Your task to perform on an android device: toggle location history Image 0: 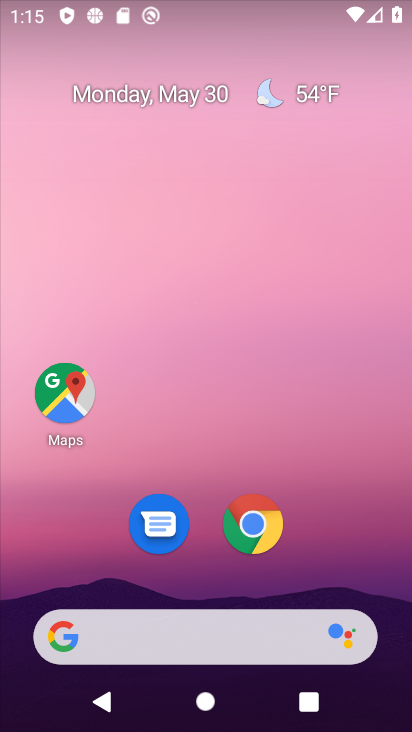
Step 0: drag from (273, 423) to (305, 1)
Your task to perform on an android device: toggle location history Image 1: 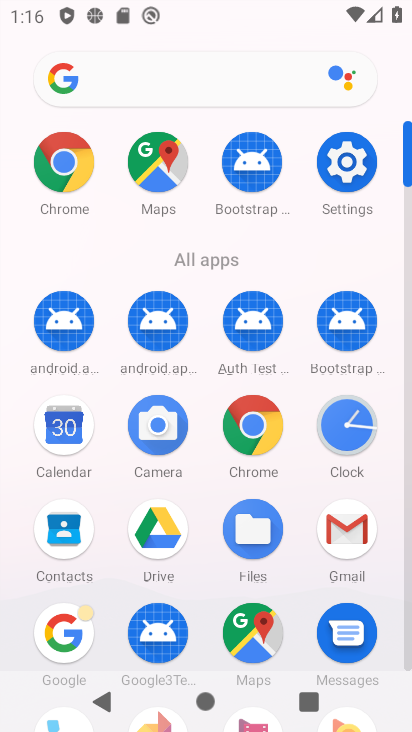
Step 1: click (358, 169)
Your task to perform on an android device: toggle location history Image 2: 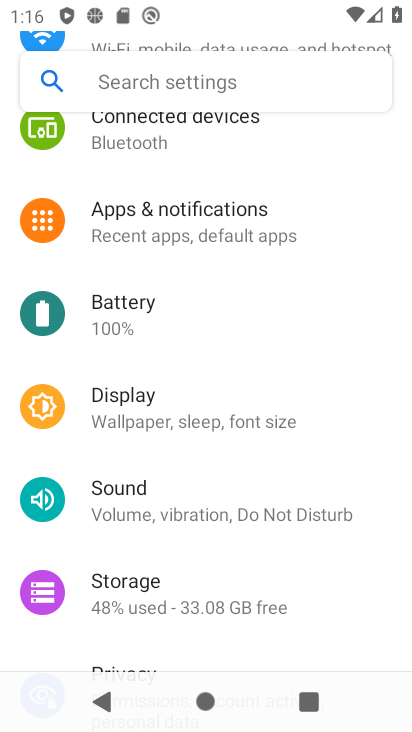
Step 2: drag from (245, 458) to (239, 127)
Your task to perform on an android device: toggle location history Image 3: 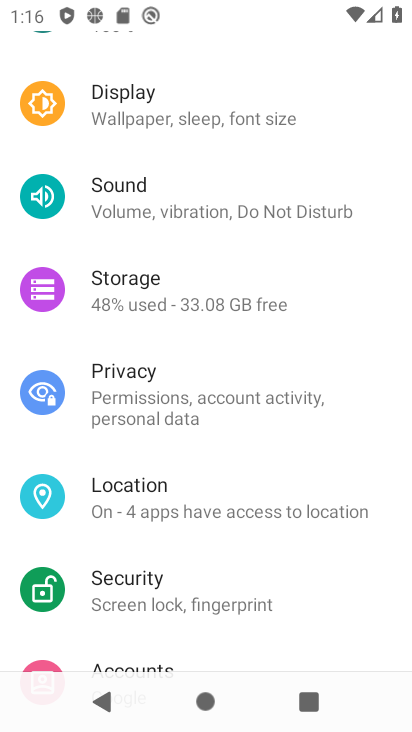
Step 3: click (245, 494)
Your task to perform on an android device: toggle location history Image 4: 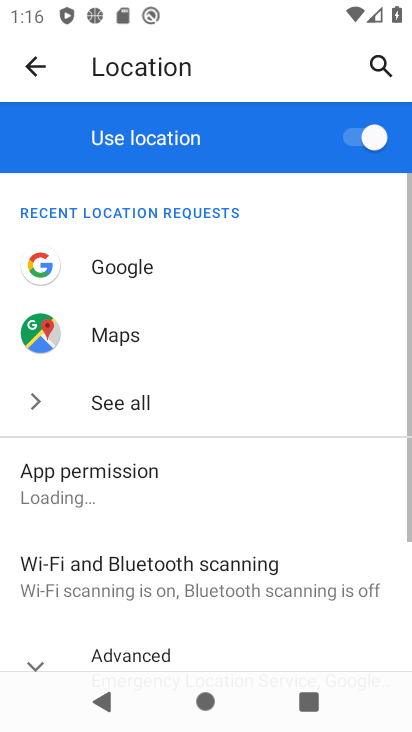
Step 4: drag from (244, 519) to (238, 34)
Your task to perform on an android device: toggle location history Image 5: 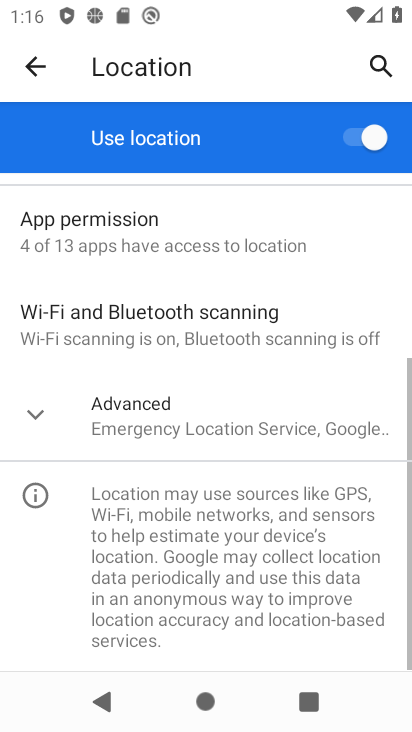
Step 5: click (37, 408)
Your task to perform on an android device: toggle location history Image 6: 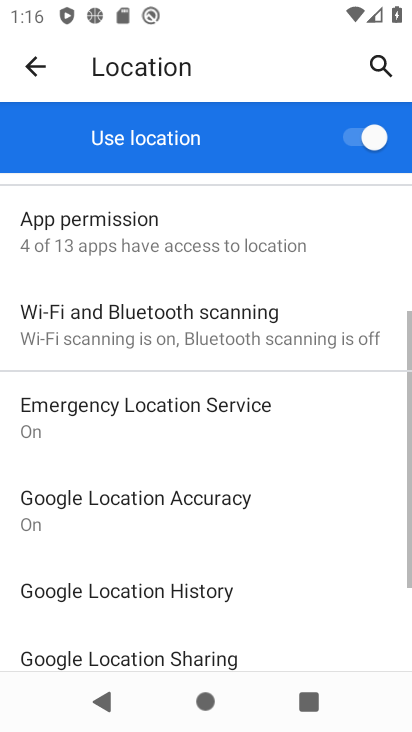
Step 6: drag from (212, 550) to (241, 384)
Your task to perform on an android device: toggle location history Image 7: 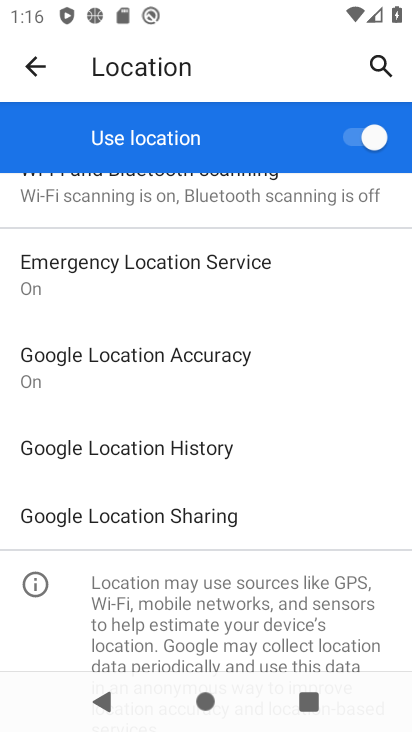
Step 7: click (232, 449)
Your task to perform on an android device: toggle location history Image 8: 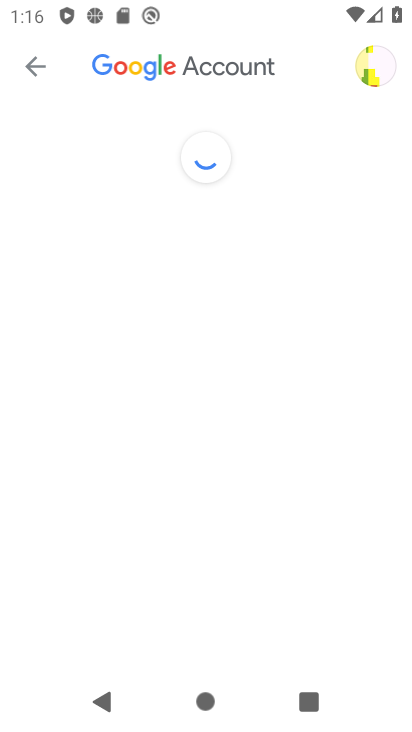
Step 8: drag from (289, 426) to (293, 92)
Your task to perform on an android device: toggle location history Image 9: 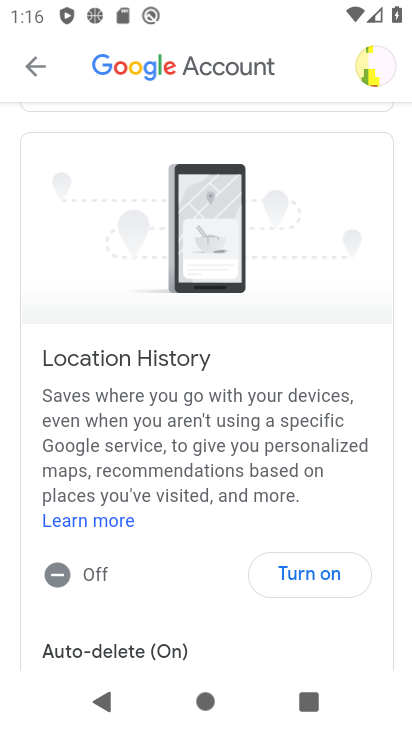
Step 9: click (319, 574)
Your task to perform on an android device: toggle location history Image 10: 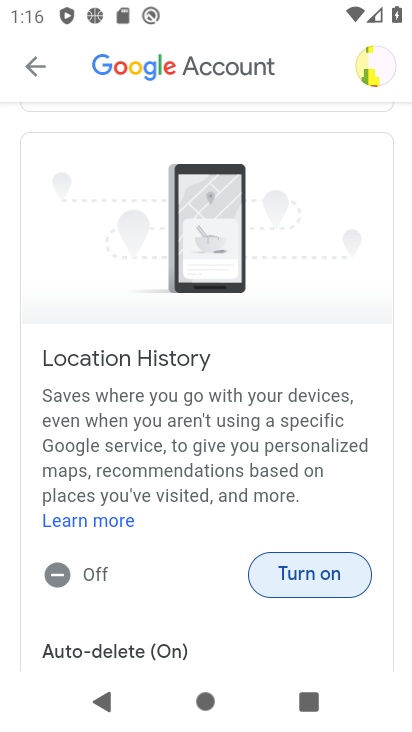
Step 10: click (319, 571)
Your task to perform on an android device: toggle location history Image 11: 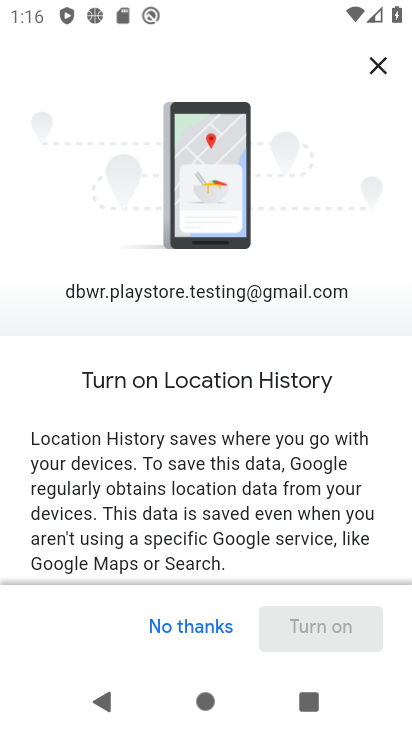
Step 11: drag from (271, 522) to (257, 52)
Your task to perform on an android device: toggle location history Image 12: 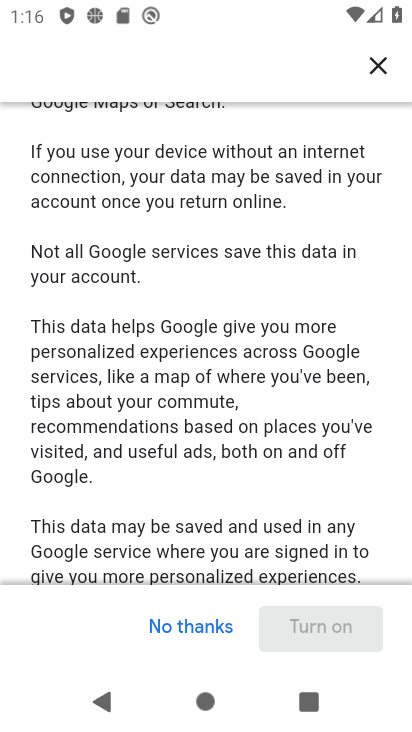
Step 12: drag from (227, 451) to (286, 50)
Your task to perform on an android device: toggle location history Image 13: 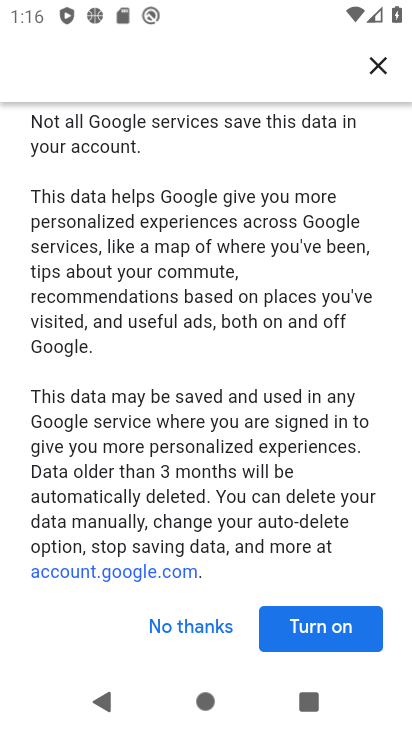
Step 13: click (321, 632)
Your task to perform on an android device: toggle location history Image 14: 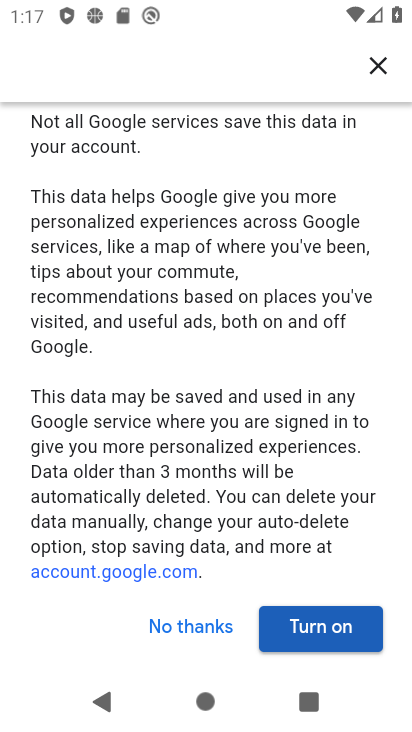
Step 14: click (324, 629)
Your task to perform on an android device: toggle location history Image 15: 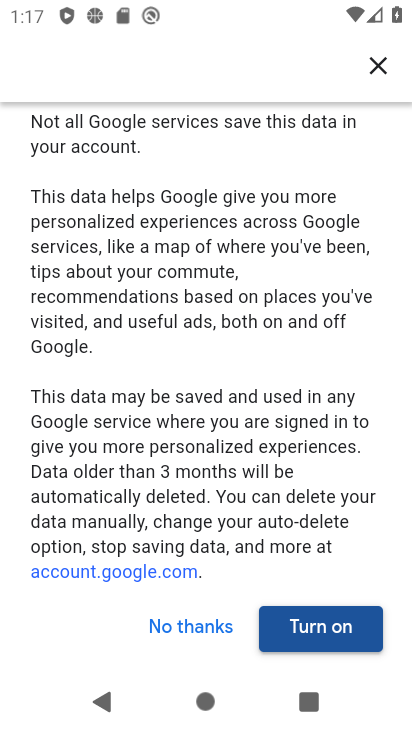
Step 15: click (324, 629)
Your task to perform on an android device: toggle location history Image 16: 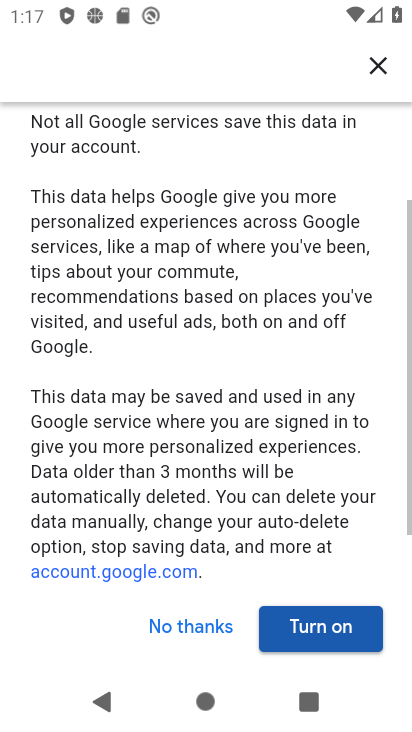
Step 16: click (347, 632)
Your task to perform on an android device: toggle location history Image 17: 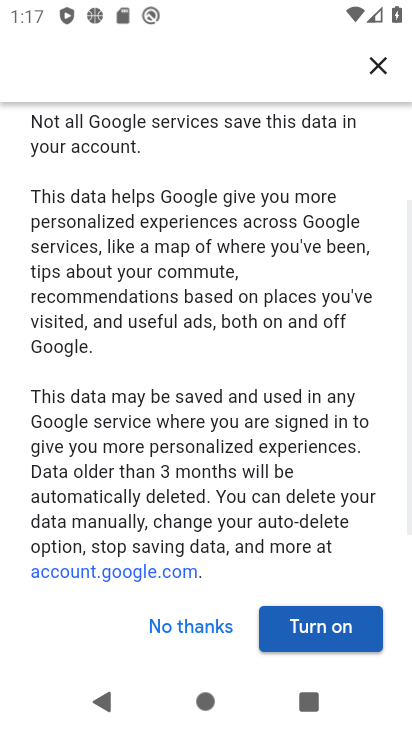
Step 17: click (345, 633)
Your task to perform on an android device: toggle location history Image 18: 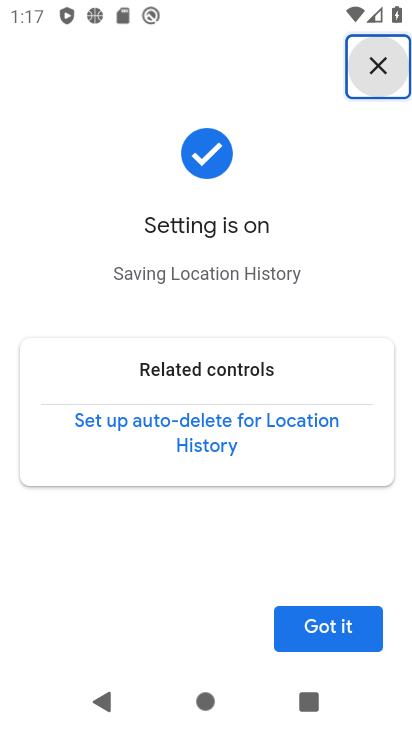
Step 18: click (342, 632)
Your task to perform on an android device: toggle location history Image 19: 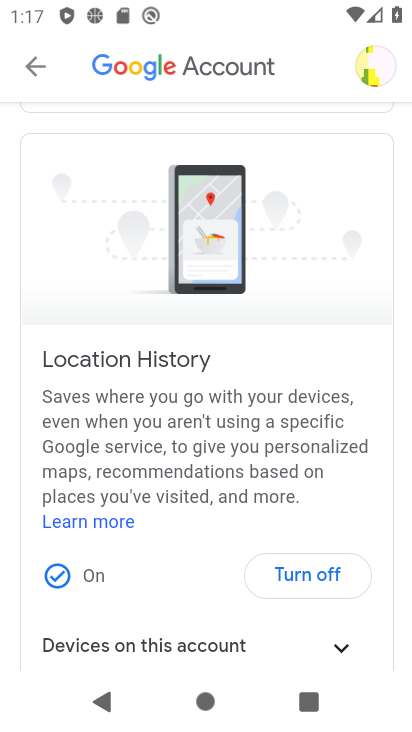
Step 19: task complete